Your task to perform on an android device: change timer sound Image 0: 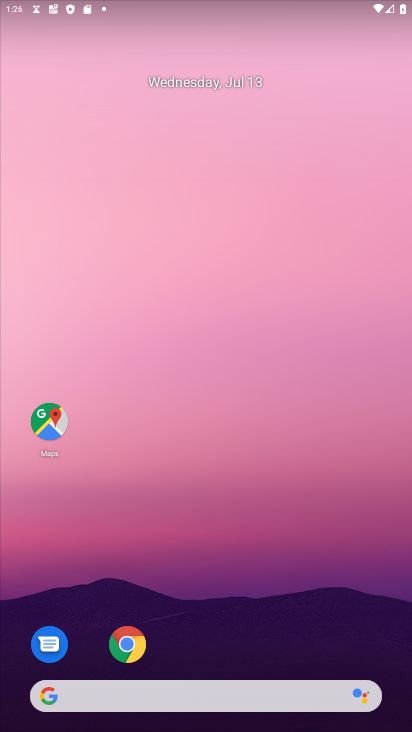
Step 0: press home button
Your task to perform on an android device: change timer sound Image 1: 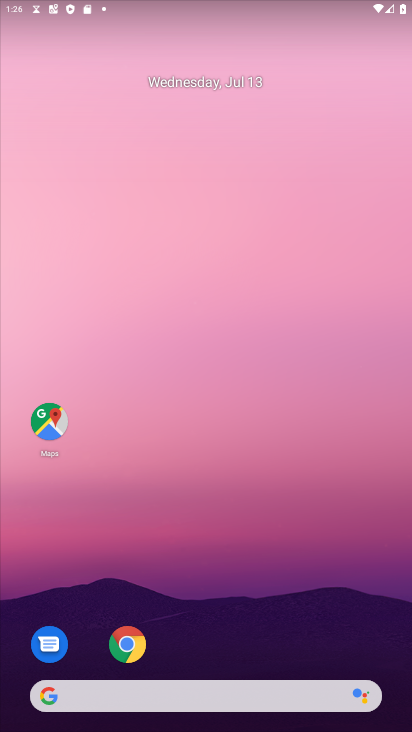
Step 1: drag from (241, 631) to (196, 107)
Your task to perform on an android device: change timer sound Image 2: 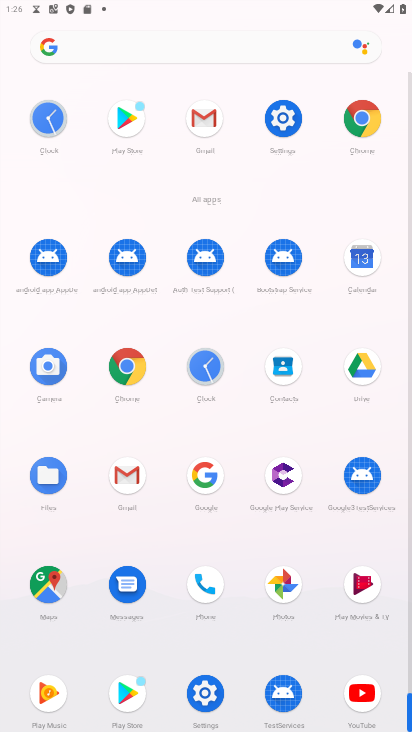
Step 2: click (195, 365)
Your task to perform on an android device: change timer sound Image 3: 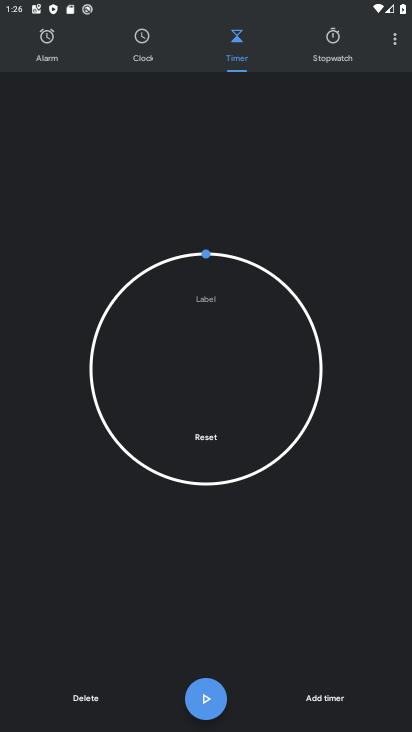
Step 3: click (389, 42)
Your task to perform on an android device: change timer sound Image 4: 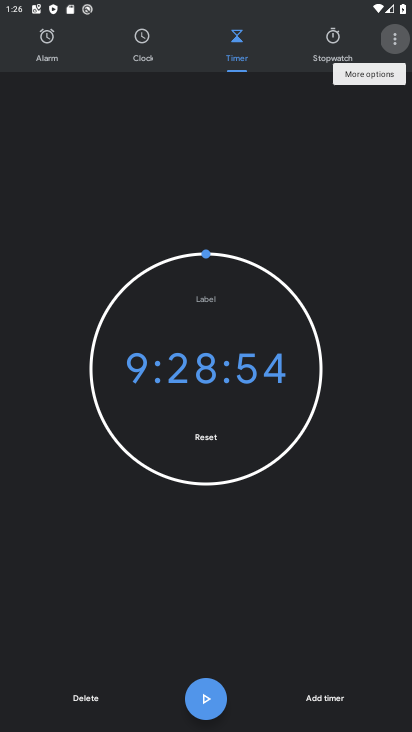
Step 4: click (387, 41)
Your task to perform on an android device: change timer sound Image 5: 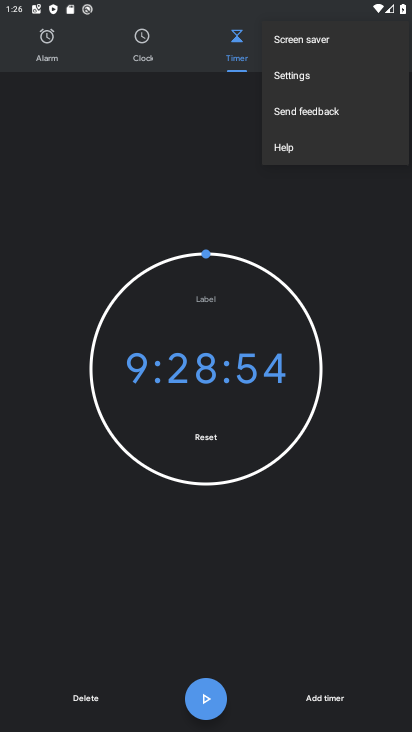
Step 5: click (286, 70)
Your task to perform on an android device: change timer sound Image 6: 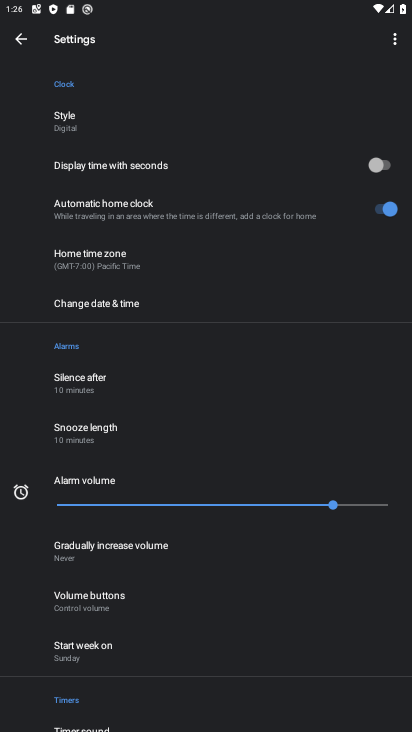
Step 6: drag from (163, 645) to (155, 345)
Your task to perform on an android device: change timer sound Image 7: 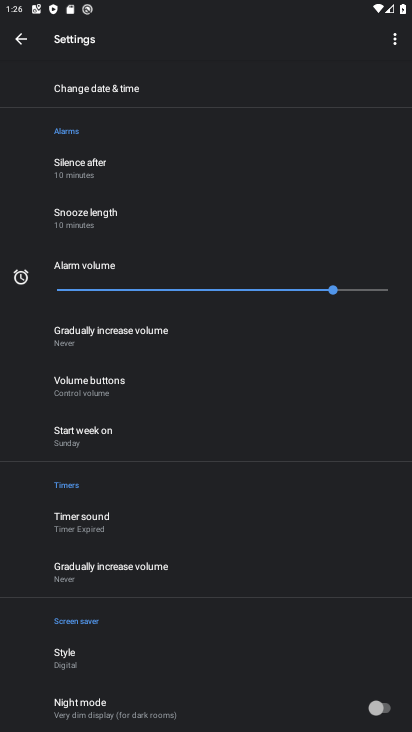
Step 7: click (95, 524)
Your task to perform on an android device: change timer sound Image 8: 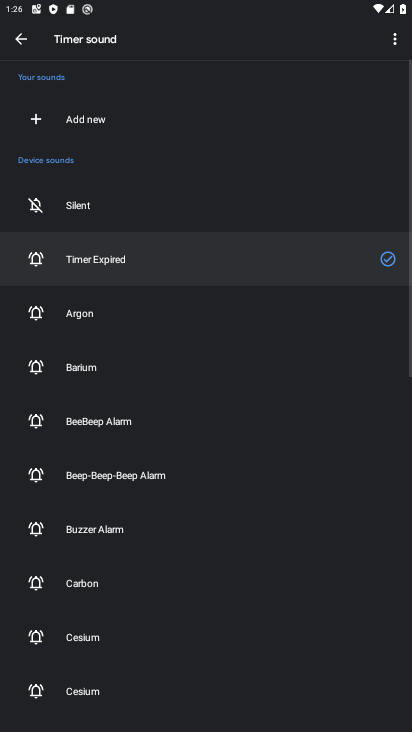
Step 8: click (73, 418)
Your task to perform on an android device: change timer sound Image 9: 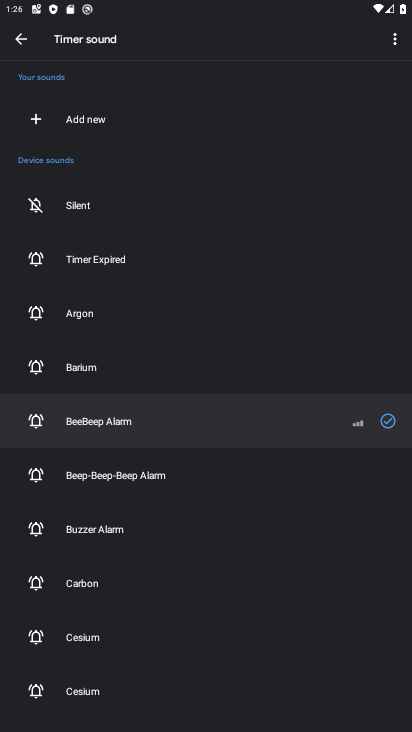
Step 9: task complete